Your task to perform on an android device: Show me recent news Image 0: 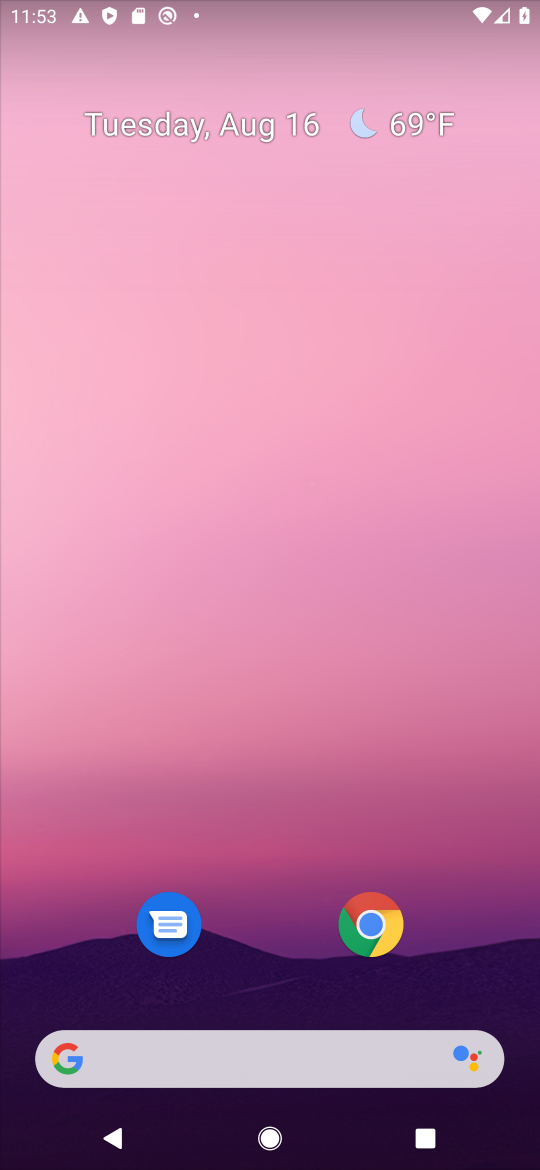
Step 0: click (254, 115)
Your task to perform on an android device: Show me recent news Image 1: 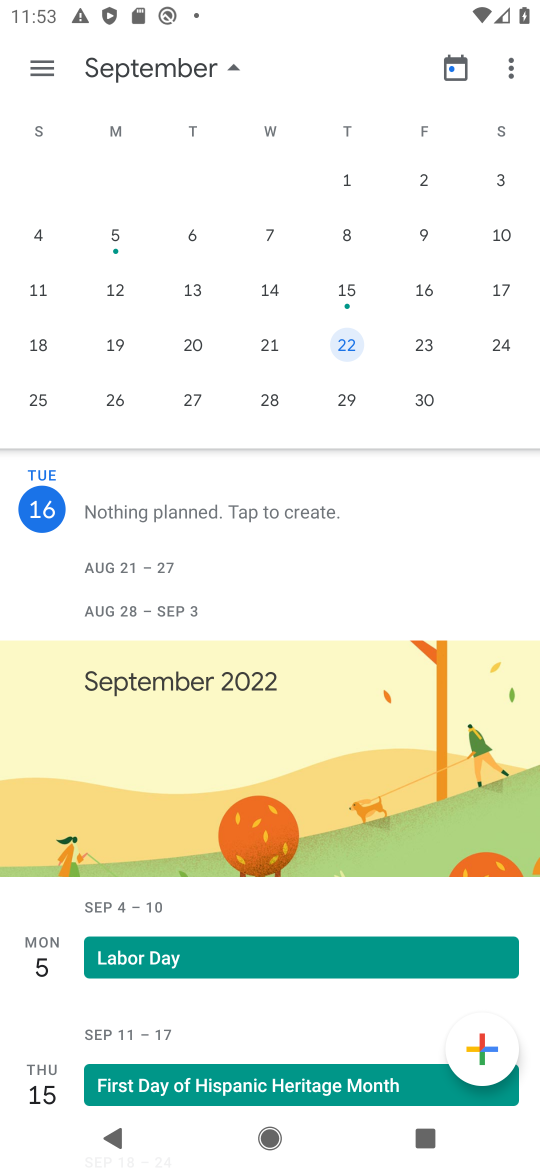
Step 1: press home button
Your task to perform on an android device: Show me recent news Image 2: 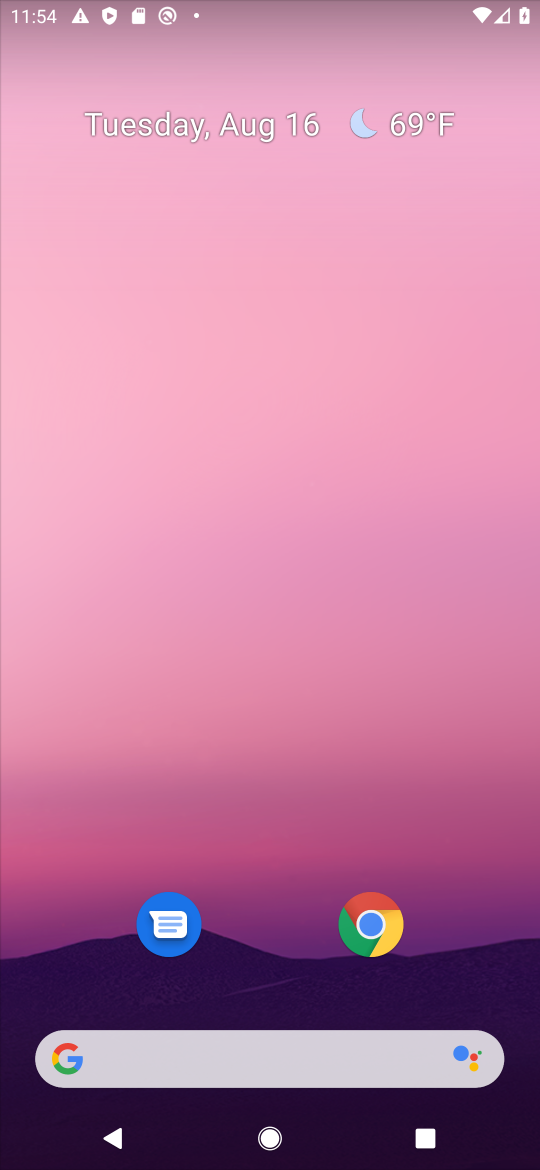
Step 2: click (237, 1049)
Your task to perform on an android device: Show me recent news Image 3: 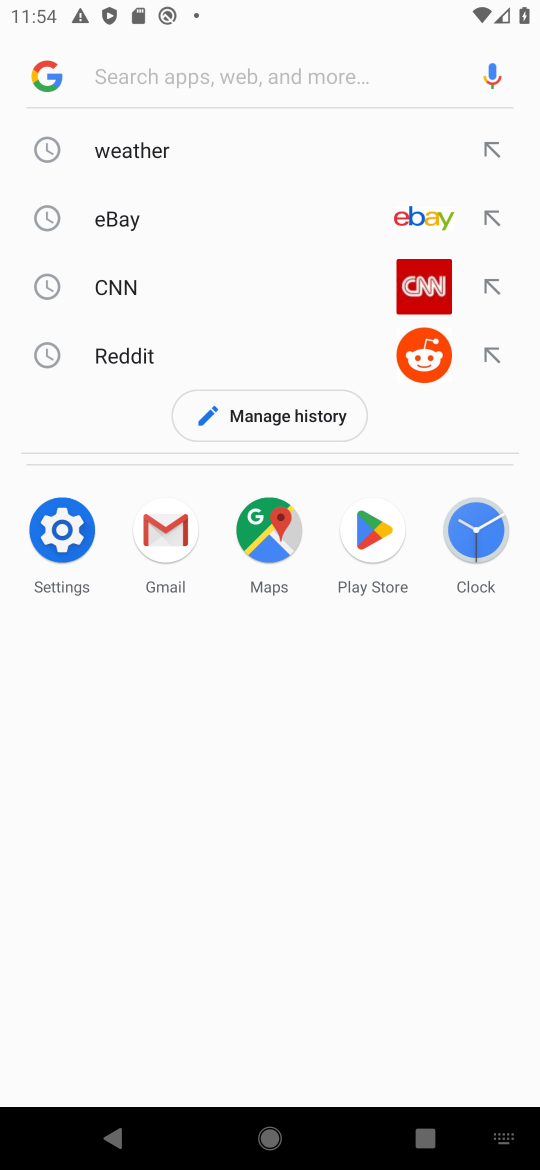
Step 3: click (33, 77)
Your task to perform on an android device: Show me recent news Image 4: 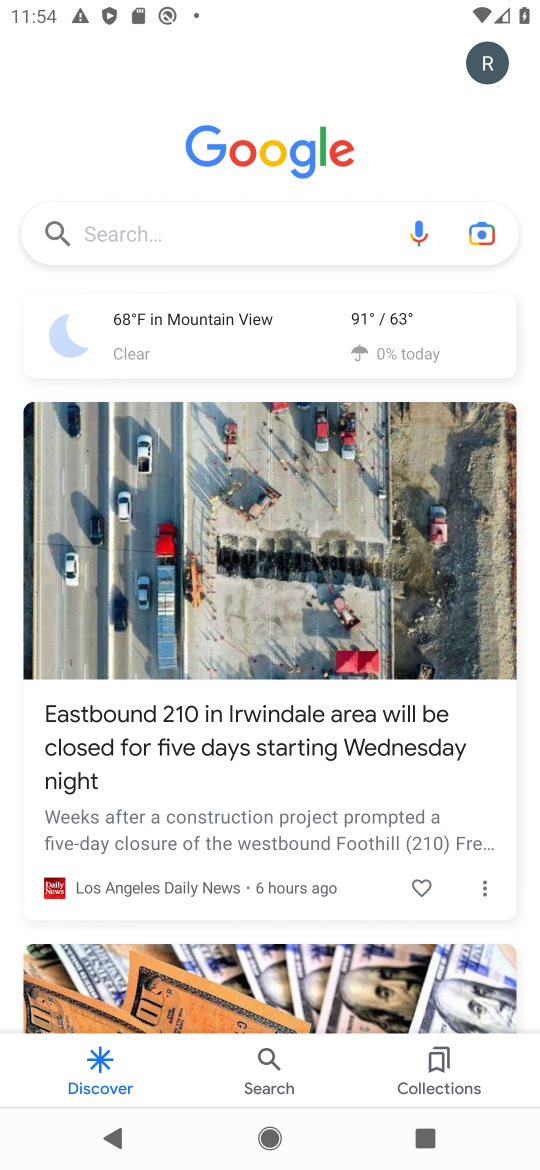
Step 4: task complete